Your task to perform on an android device: toggle sleep mode Image 0: 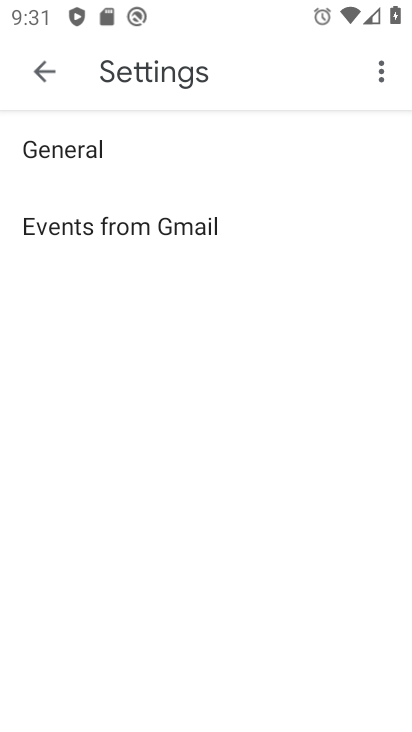
Step 0: press home button
Your task to perform on an android device: toggle sleep mode Image 1: 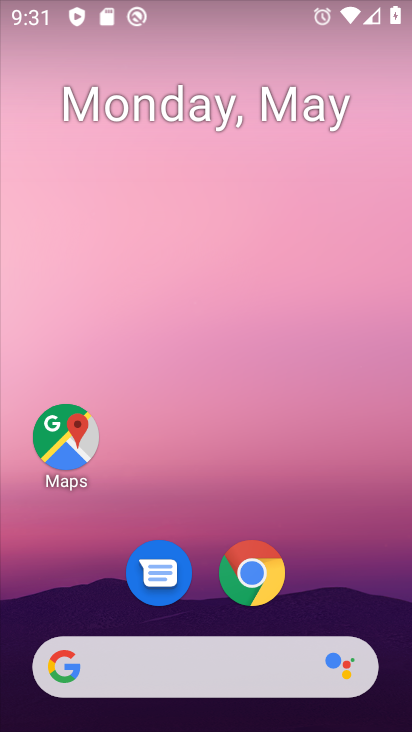
Step 1: drag from (270, 521) to (303, 109)
Your task to perform on an android device: toggle sleep mode Image 2: 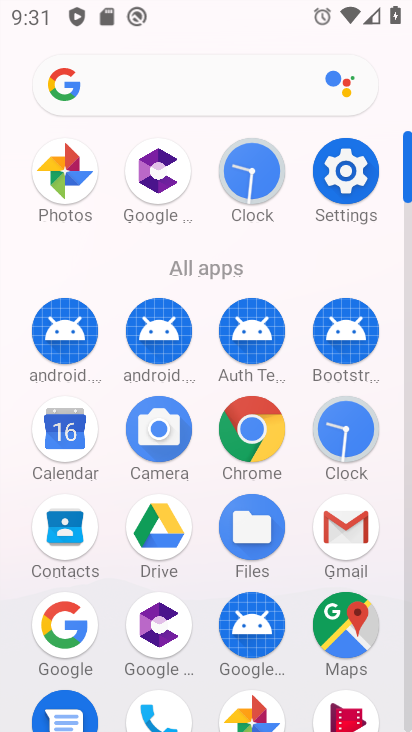
Step 2: click (351, 169)
Your task to perform on an android device: toggle sleep mode Image 3: 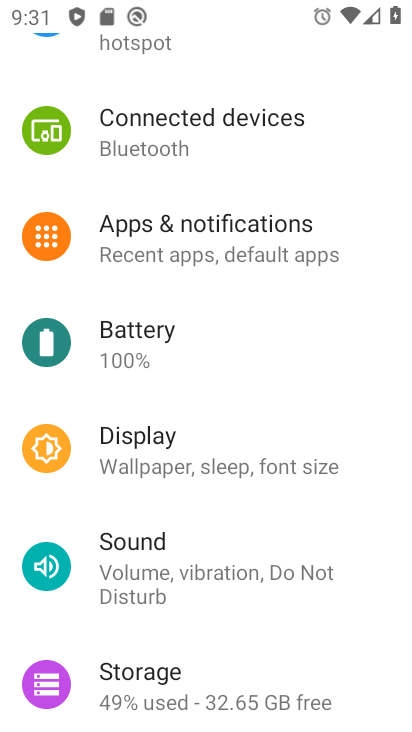
Step 3: click (207, 452)
Your task to perform on an android device: toggle sleep mode Image 4: 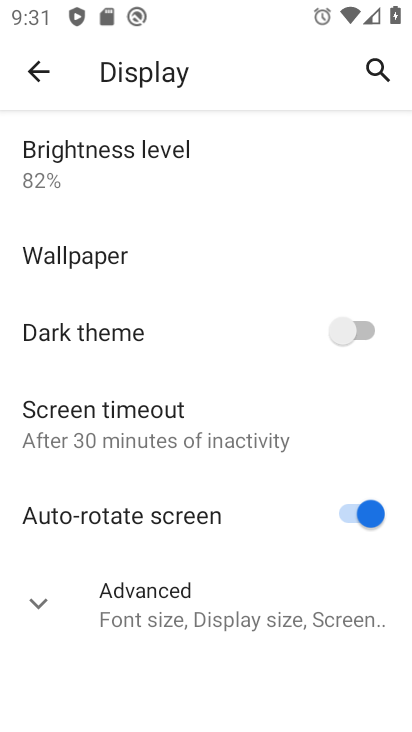
Step 4: click (89, 436)
Your task to perform on an android device: toggle sleep mode Image 5: 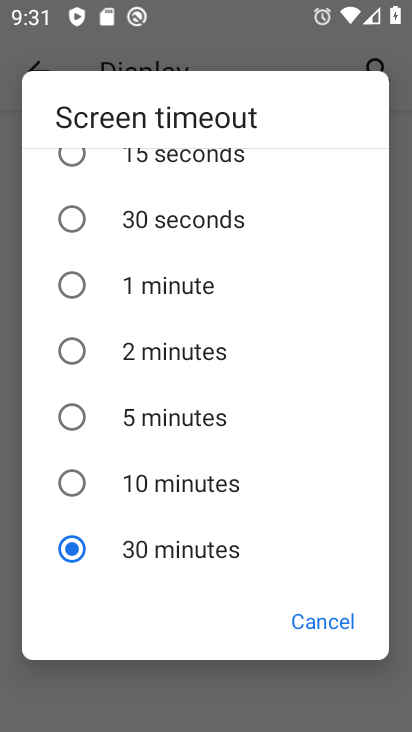
Step 5: click (147, 413)
Your task to perform on an android device: toggle sleep mode Image 6: 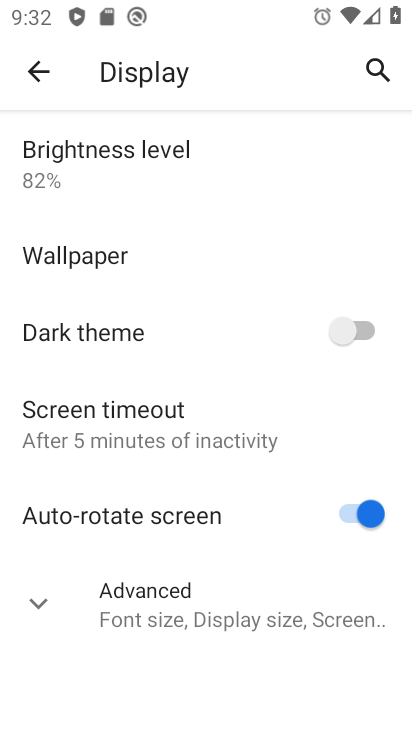
Step 6: task complete